Your task to perform on an android device: open a bookmark in the chrome app Image 0: 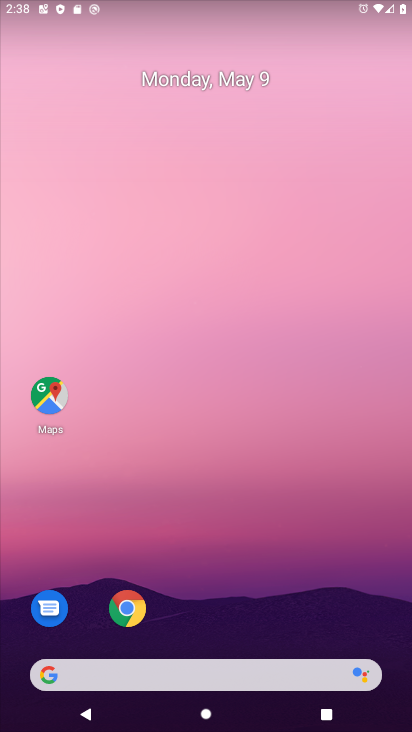
Step 0: click (123, 607)
Your task to perform on an android device: open a bookmark in the chrome app Image 1: 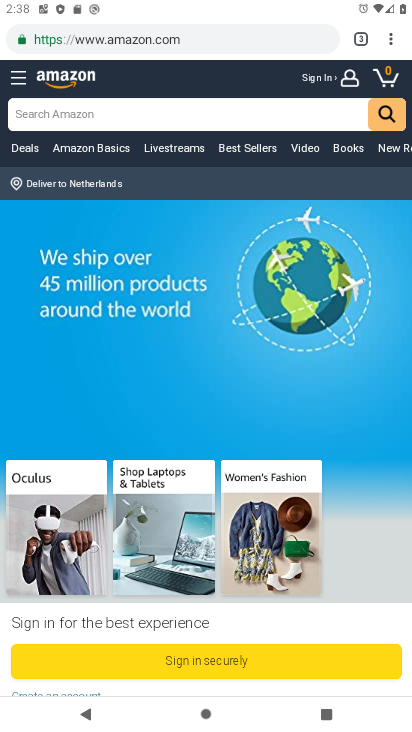
Step 1: click (381, 34)
Your task to perform on an android device: open a bookmark in the chrome app Image 2: 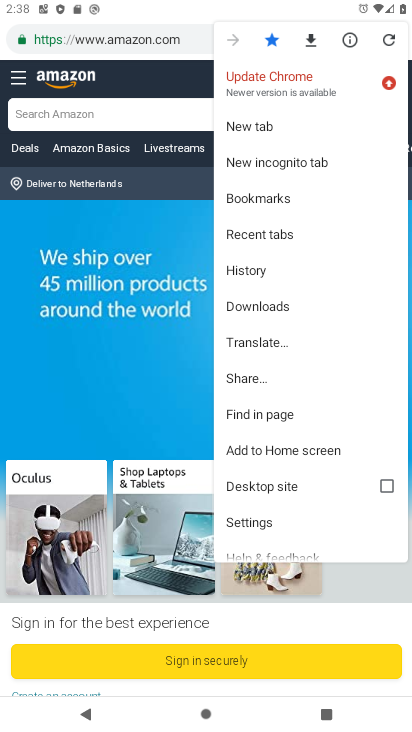
Step 2: click (276, 208)
Your task to perform on an android device: open a bookmark in the chrome app Image 3: 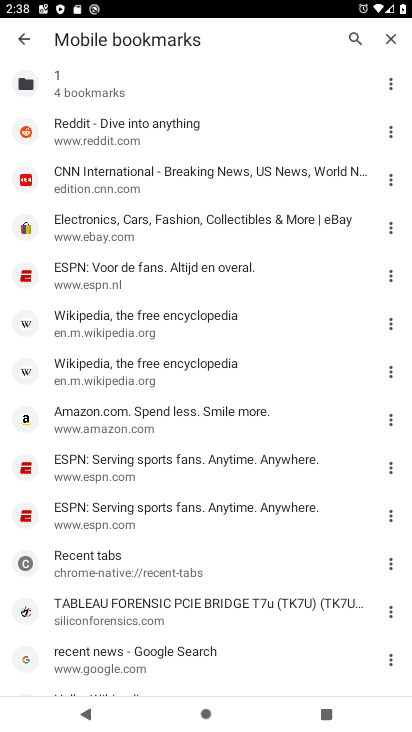
Step 3: click (112, 602)
Your task to perform on an android device: open a bookmark in the chrome app Image 4: 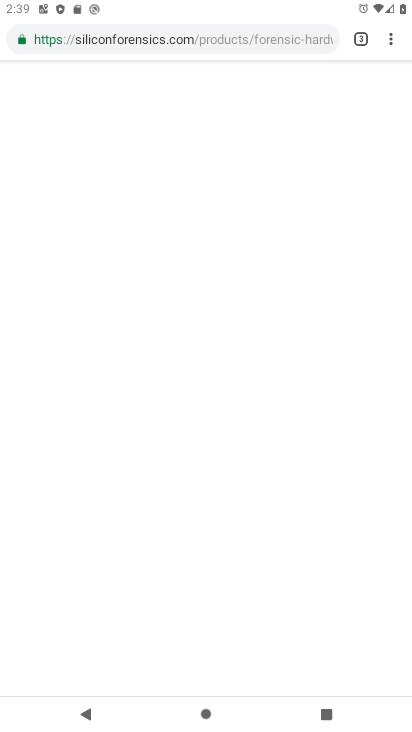
Step 4: task complete